Your task to perform on an android device: find snoozed emails in the gmail app Image 0: 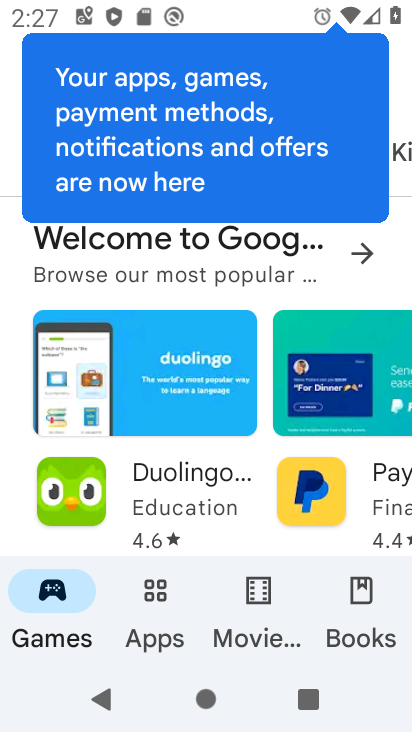
Step 0: press home button
Your task to perform on an android device: find snoozed emails in the gmail app Image 1: 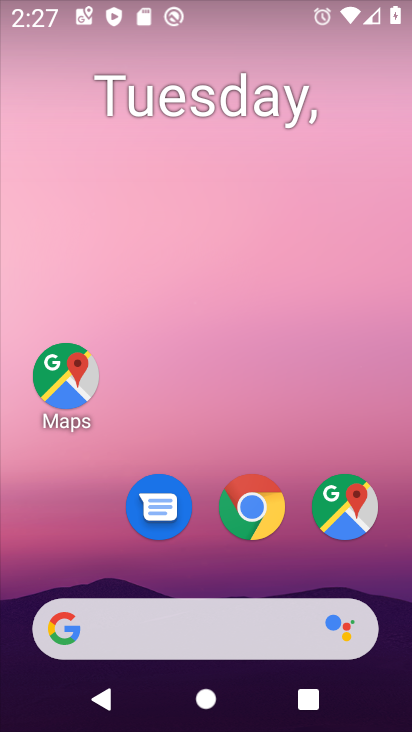
Step 1: drag from (272, 569) to (292, 153)
Your task to perform on an android device: find snoozed emails in the gmail app Image 2: 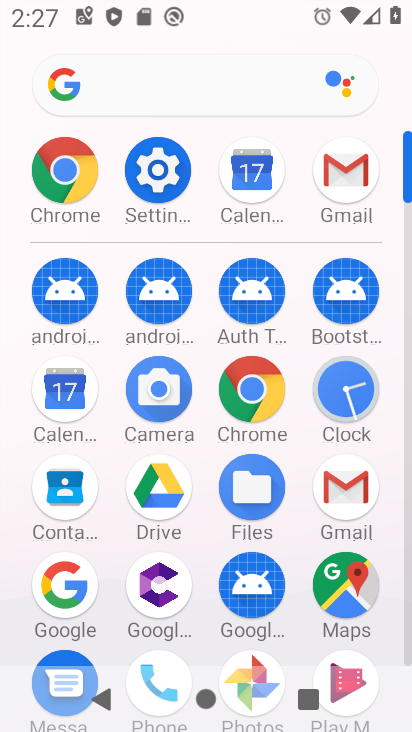
Step 2: drag from (304, 579) to (317, 443)
Your task to perform on an android device: find snoozed emails in the gmail app Image 3: 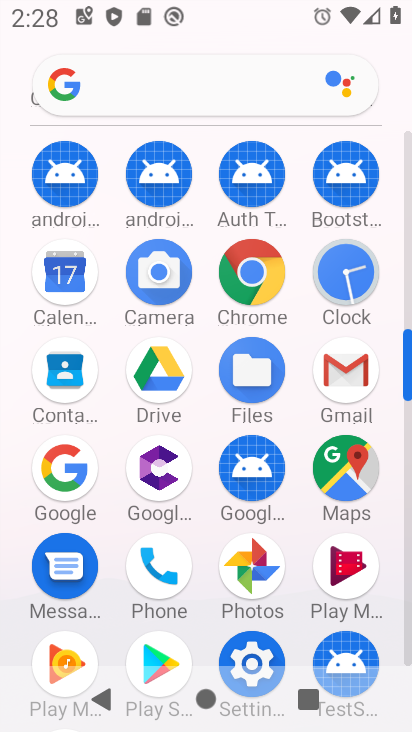
Step 3: click (348, 361)
Your task to perform on an android device: find snoozed emails in the gmail app Image 4: 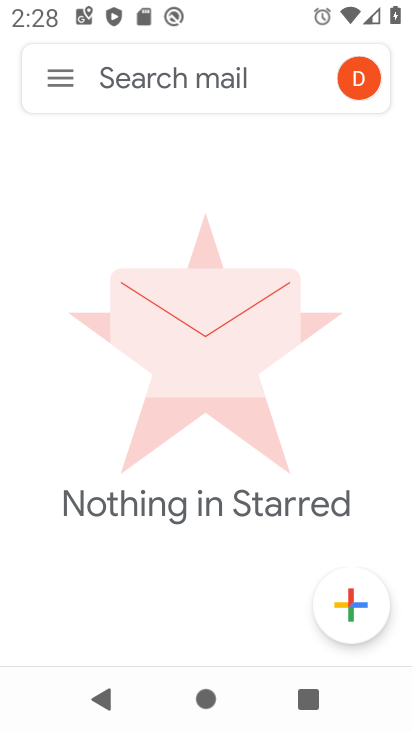
Step 4: click (62, 64)
Your task to perform on an android device: find snoozed emails in the gmail app Image 5: 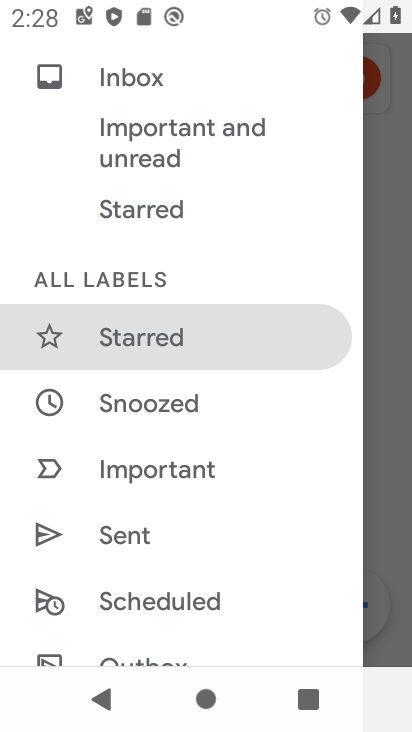
Step 5: click (166, 396)
Your task to perform on an android device: find snoozed emails in the gmail app Image 6: 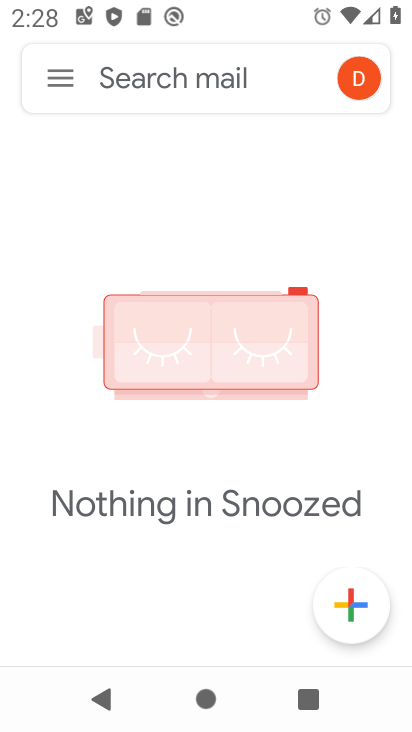
Step 6: task complete